Your task to perform on an android device: Go to Amazon Image 0: 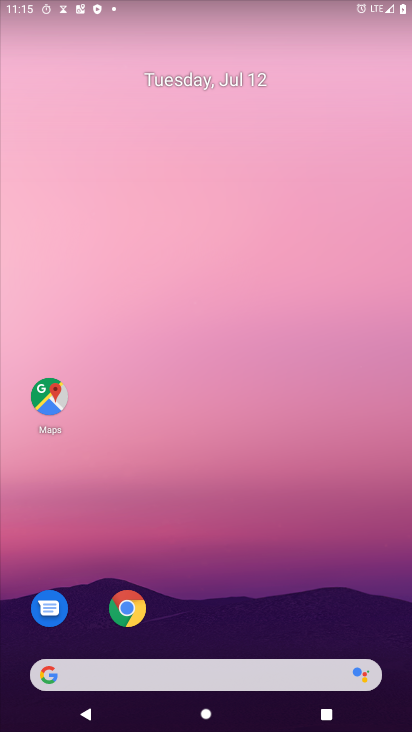
Step 0: click (263, 630)
Your task to perform on an android device: Go to Amazon Image 1: 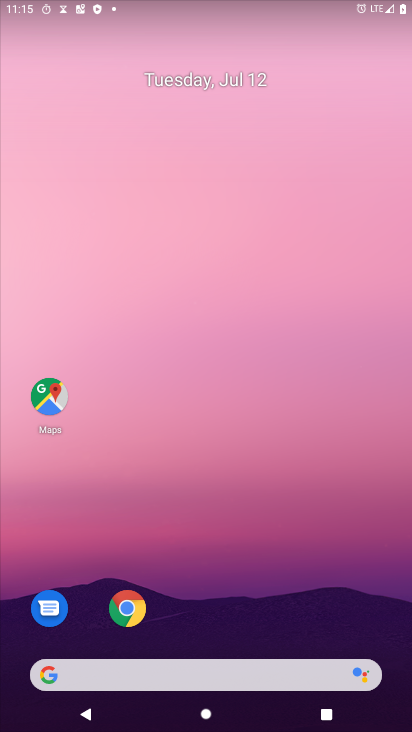
Step 1: click (136, 612)
Your task to perform on an android device: Go to Amazon Image 2: 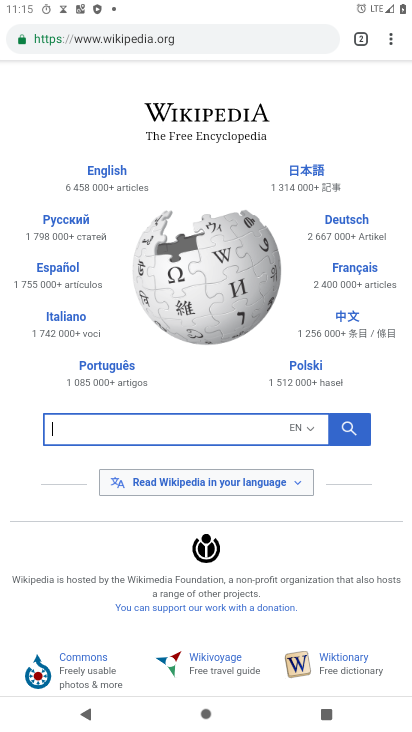
Step 2: click (194, 51)
Your task to perform on an android device: Go to Amazon Image 3: 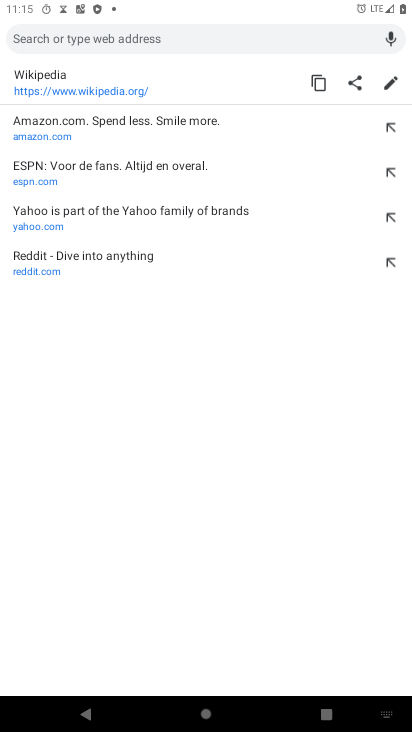
Step 3: type "amazon"
Your task to perform on an android device: Go to Amazon Image 4: 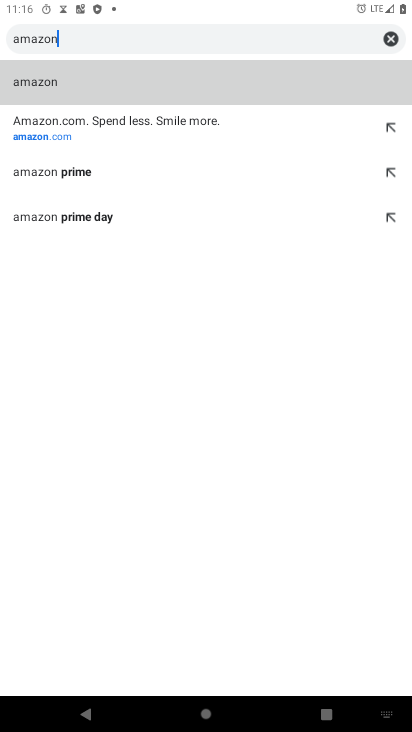
Step 4: click (278, 93)
Your task to perform on an android device: Go to Amazon Image 5: 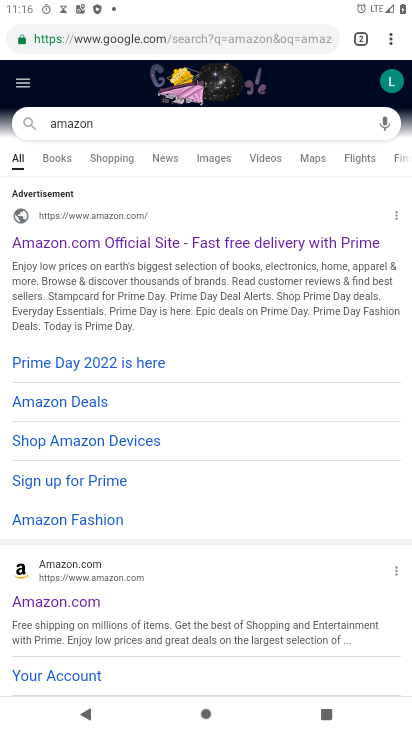
Step 5: click (27, 249)
Your task to perform on an android device: Go to Amazon Image 6: 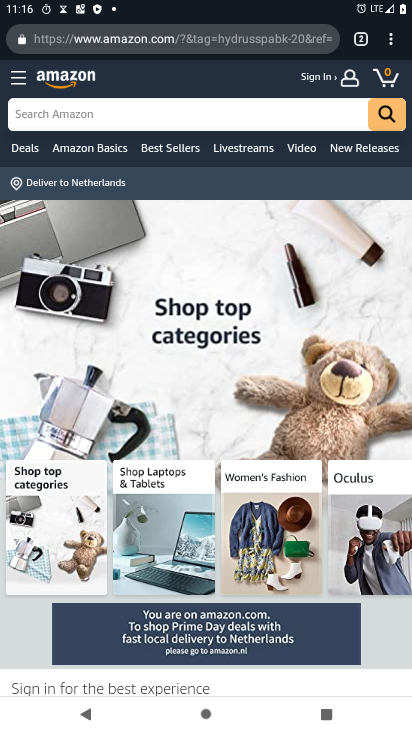
Step 6: task complete